Your task to perform on an android device: make emails show in primary in the gmail app Image 0: 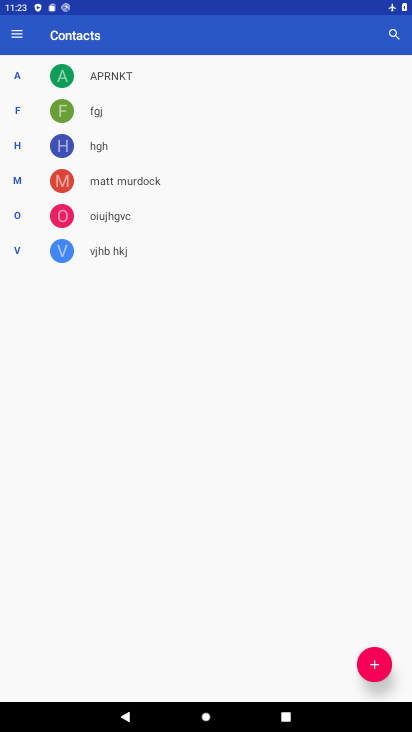
Step 0: press home button
Your task to perform on an android device: make emails show in primary in the gmail app Image 1: 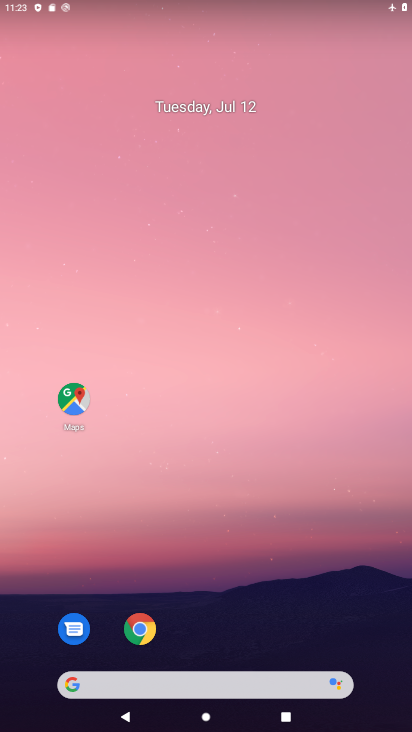
Step 1: drag from (203, 658) to (227, 58)
Your task to perform on an android device: make emails show in primary in the gmail app Image 2: 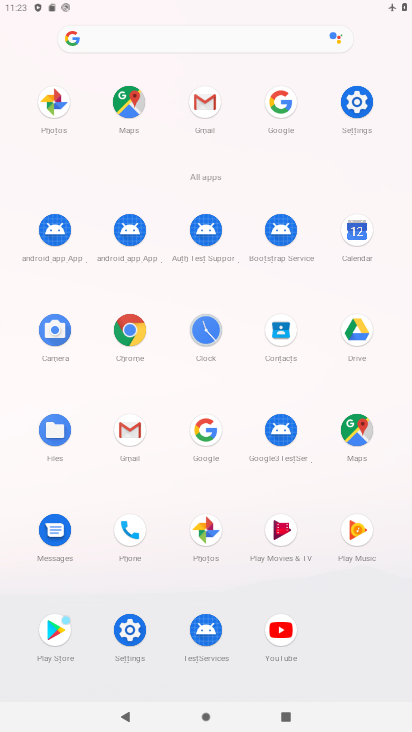
Step 2: click (210, 103)
Your task to perform on an android device: make emails show in primary in the gmail app Image 3: 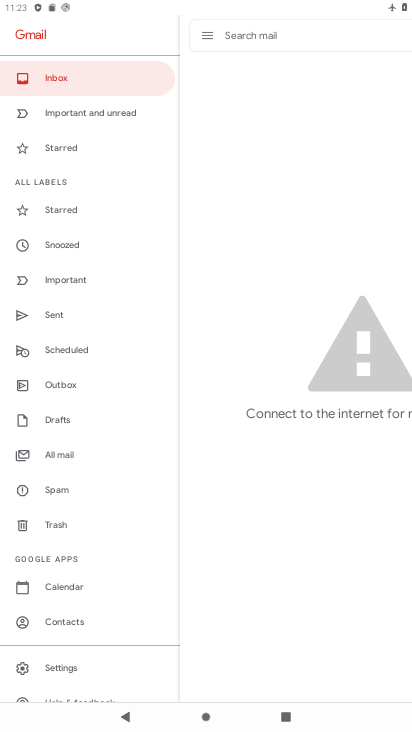
Step 3: click (49, 658)
Your task to perform on an android device: make emails show in primary in the gmail app Image 4: 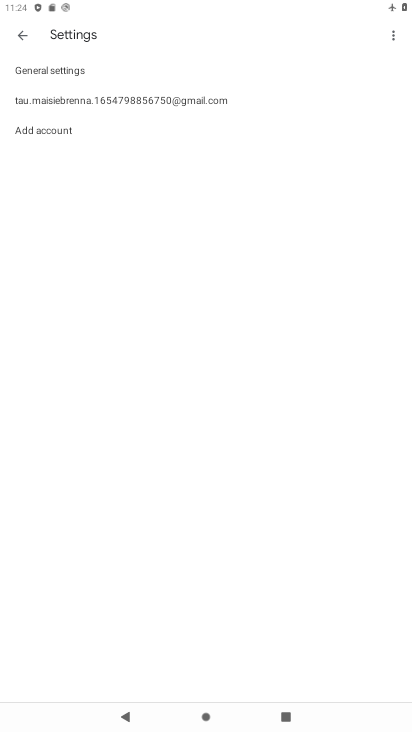
Step 4: click (38, 100)
Your task to perform on an android device: make emails show in primary in the gmail app Image 5: 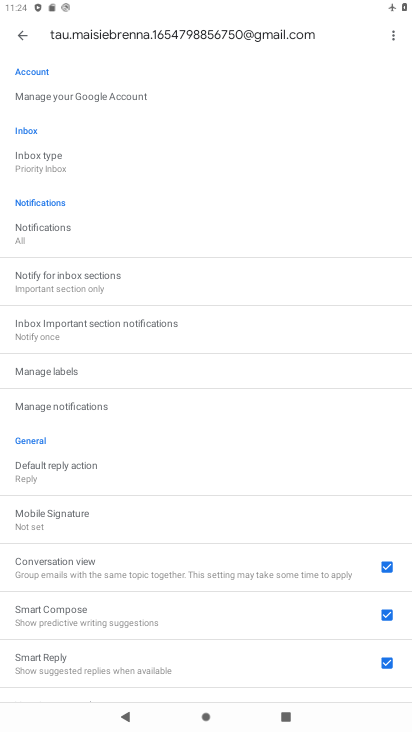
Step 5: click (37, 156)
Your task to perform on an android device: make emails show in primary in the gmail app Image 6: 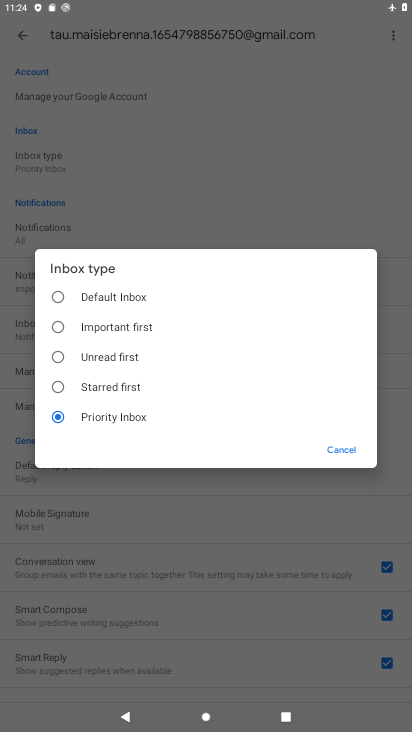
Step 6: click (100, 296)
Your task to perform on an android device: make emails show in primary in the gmail app Image 7: 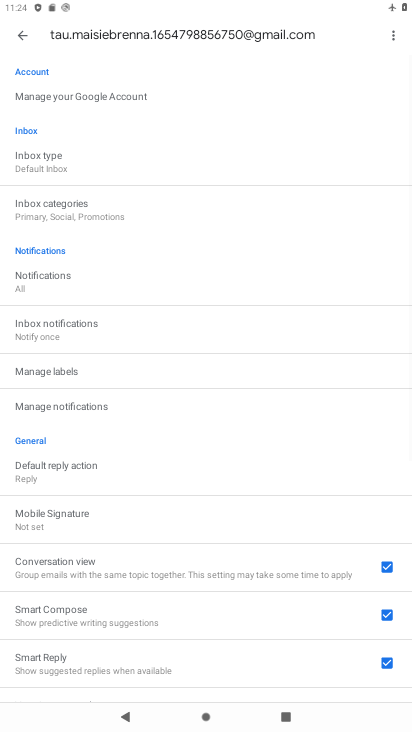
Step 7: click (14, 38)
Your task to perform on an android device: make emails show in primary in the gmail app Image 8: 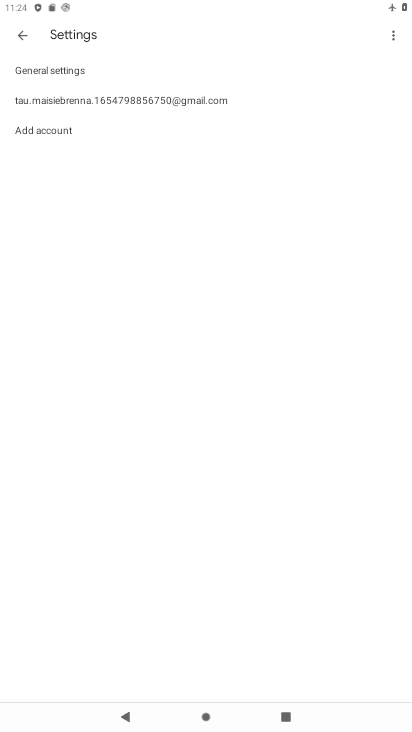
Step 8: click (14, 38)
Your task to perform on an android device: make emails show in primary in the gmail app Image 9: 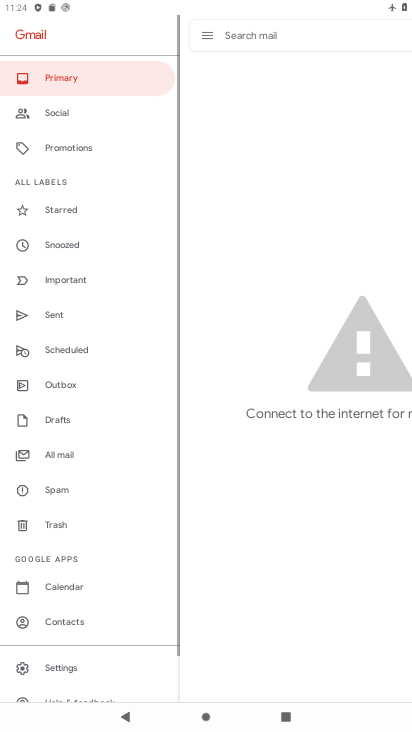
Step 9: click (43, 86)
Your task to perform on an android device: make emails show in primary in the gmail app Image 10: 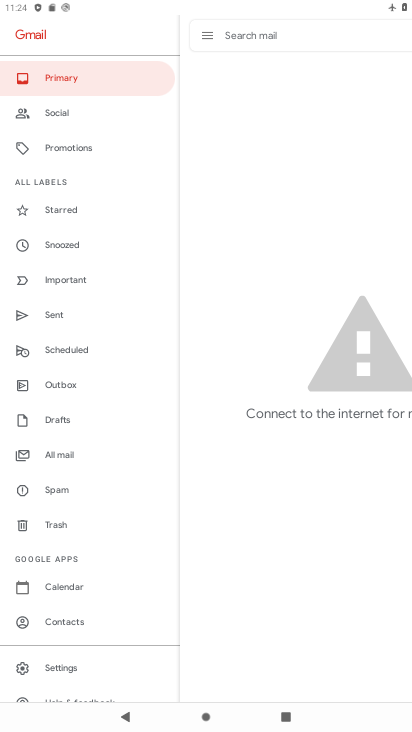
Step 10: task complete